Your task to perform on an android device: Go to CNN.com Image 0: 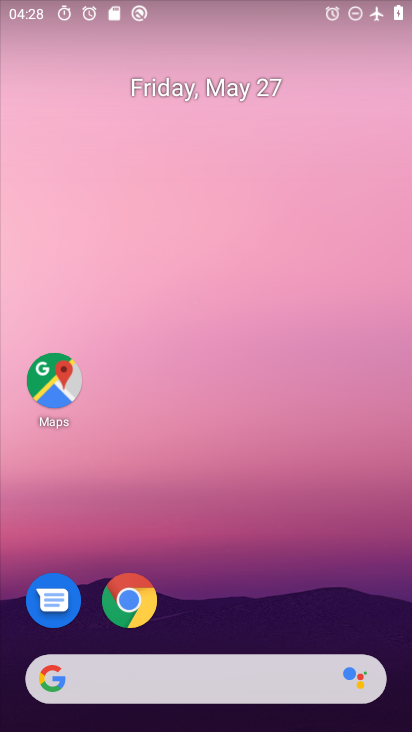
Step 0: click (131, 608)
Your task to perform on an android device: Go to CNN.com Image 1: 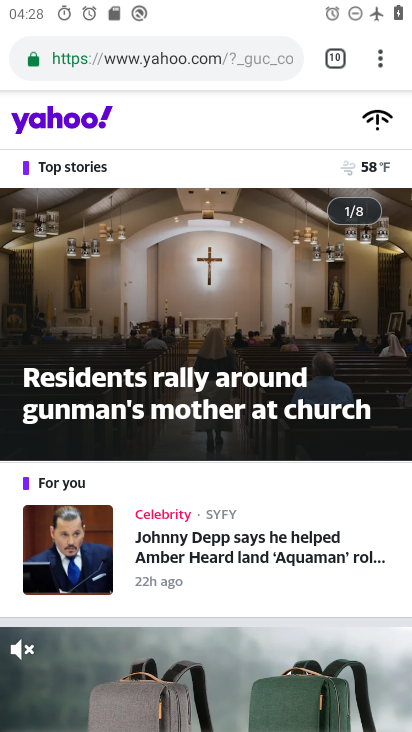
Step 1: click (380, 68)
Your task to perform on an android device: Go to CNN.com Image 2: 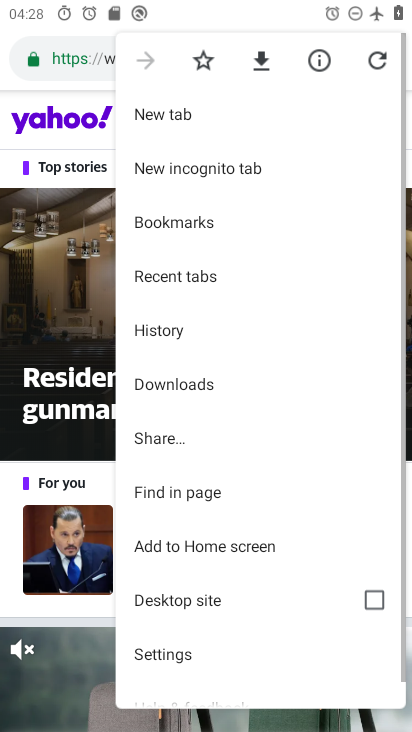
Step 2: click (164, 111)
Your task to perform on an android device: Go to CNN.com Image 3: 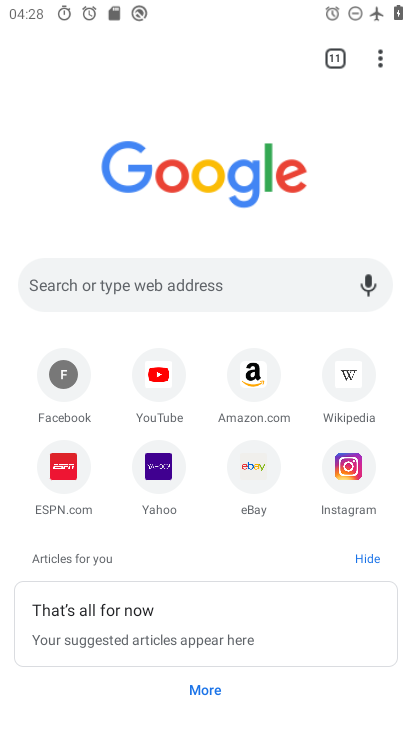
Step 3: click (223, 291)
Your task to perform on an android device: Go to CNN.com Image 4: 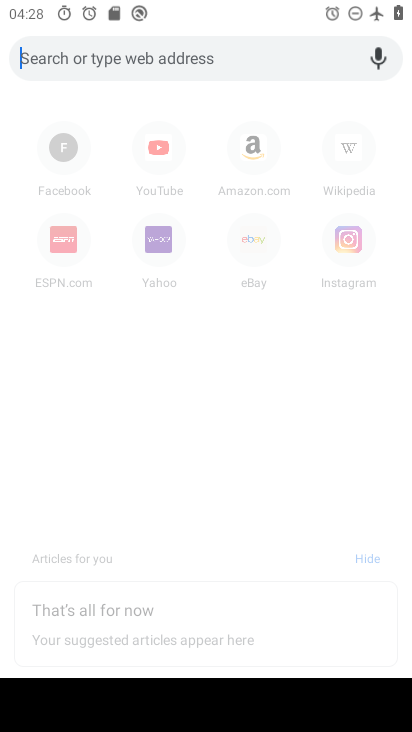
Step 4: type "CNN.com"
Your task to perform on an android device: Go to CNN.com Image 5: 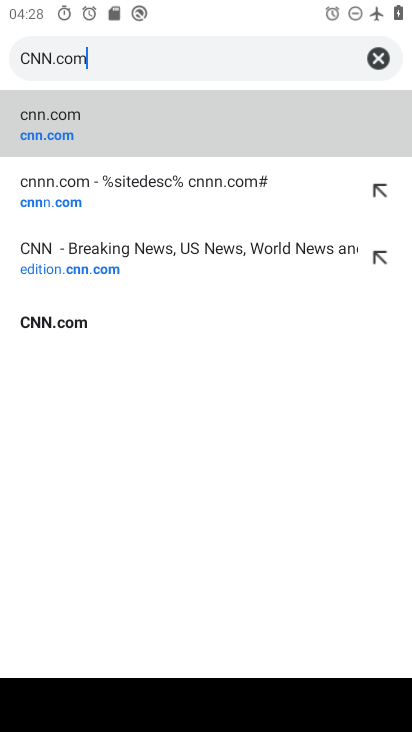
Step 5: click (66, 115)
Your task to perform on an android device: Go to CNN.com Image 6: 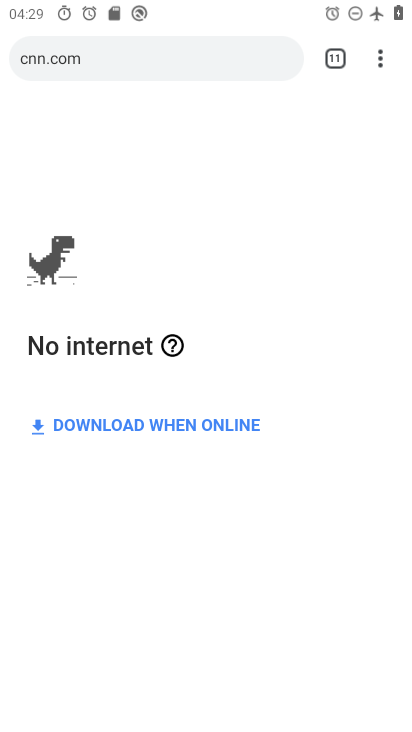
Step 6: task complete